Your task to perform on an android device: turn on airplane mode Image 0: 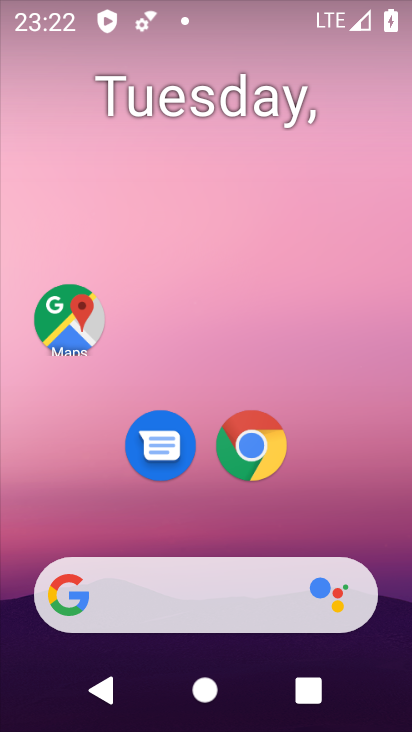
Step 0: drag from (307, 520) to (365, 18)
Your task to perform on an android device: turn on airplane mode Image 1: 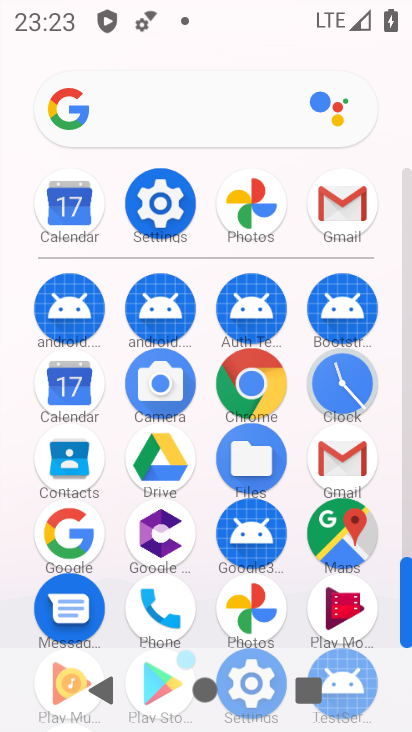
Step 1: click (138, 205)
Your task to perform on an android device: turn on airplane mode Image 2: 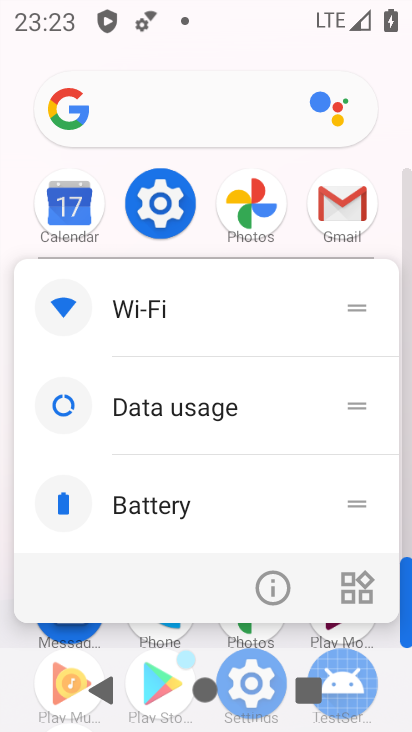
Step 2: click (165, 219)
Your task to perform on an android device: turn on airplane mode Image 3: 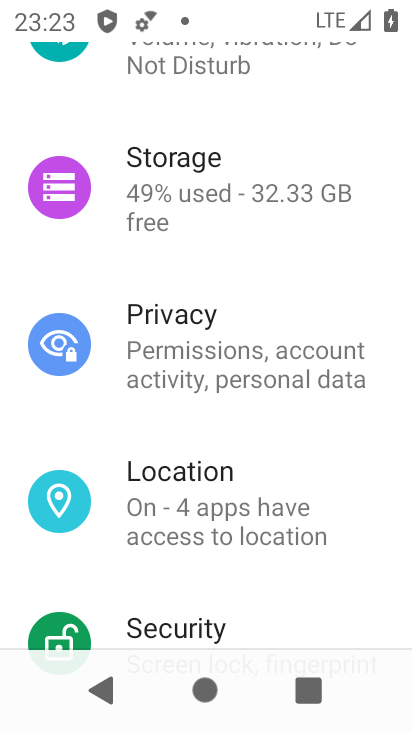
Step 3: drag from (208, 216) to (231, 376)
Your task to perform on an android device: turn on airplane mode Image 4: 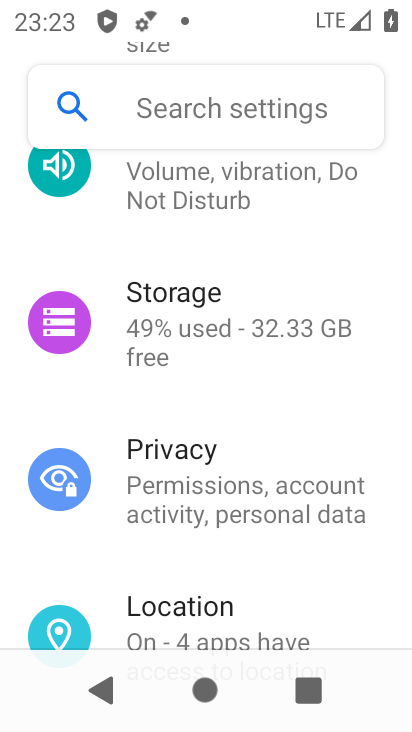
Step 4: drag from (224, 201) to (226, 347)
Your task to perform on an android device: turn on airplane mode Image 5: 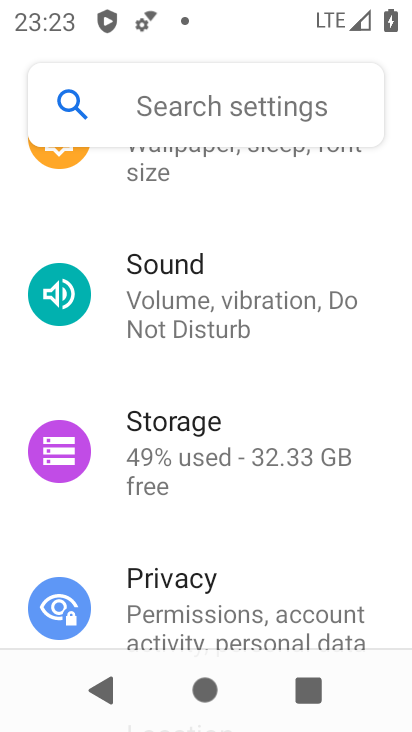
Step 5: drag from (228, 312) to (216, 369)
Your task to perform on an android device: turn on airplane mode Image 6: 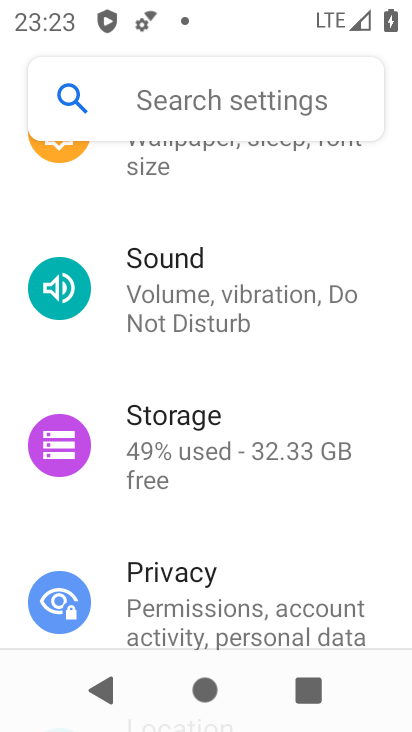
Step 6: drag from (204, 258) to (167, 462)
Your task to perform on an android device: turn on airplane mode Image 7: 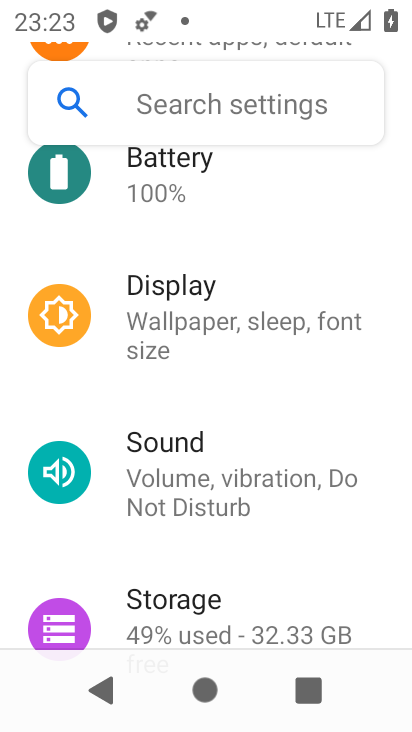
Step 7: drag from (268, 269) to (266, 586)
Your task to perform on an android device: turn on airplane mode Image 8: 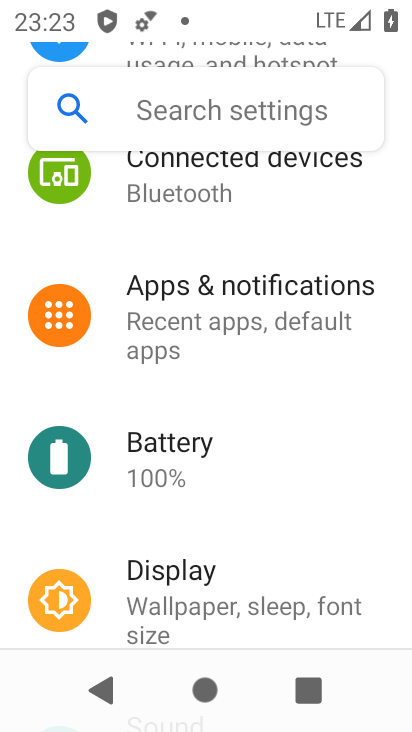
Step 8: drag from (268, 347) to (238, 532)
Your task to perform on an android device: turn on airplane mode Image 9: 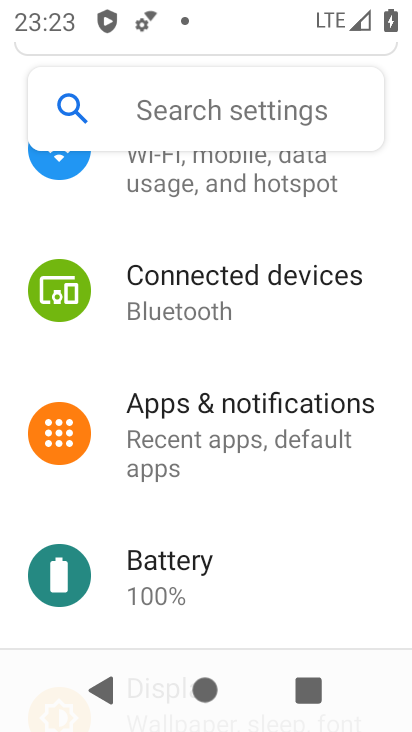
Step 9: drag from (235, 288) to (191, 535)
Your task to perform on an android device: turn on airplane mode Image 10: 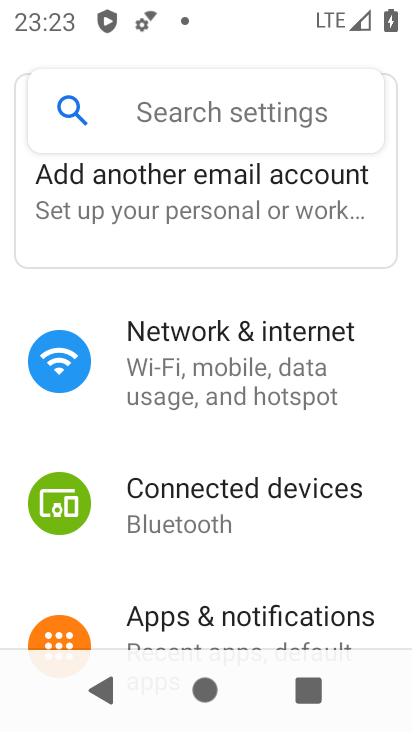
Step 10: click (245, 351)
Your task to perform on an android device: turn on airplane mode Image 11: 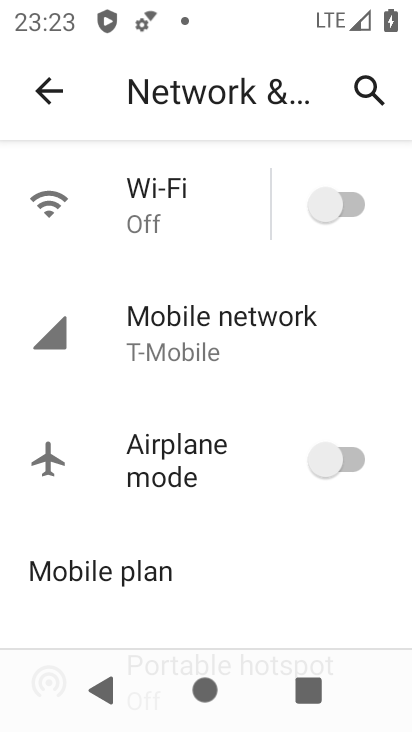
Step 11: click (326, 453)
Your task to perform on an android device: turn on airplane mode Image 12: 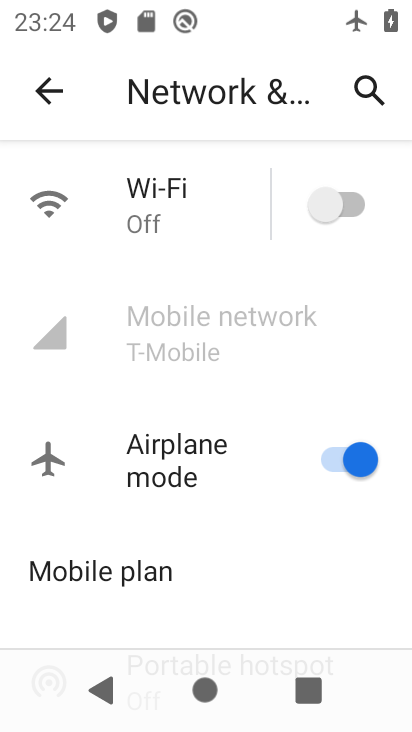
Step 12: task complete